Your task to perform on an android device: open the mobile data screen to see how much data has been used Image 0: 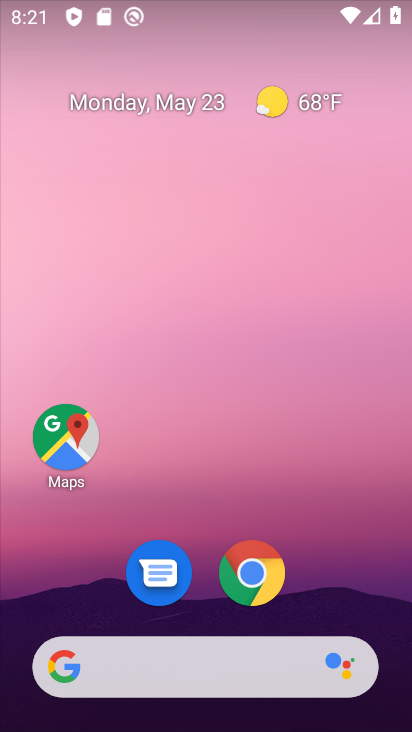
Step 0: drag from (206, 606) to (218, 138)
Your task to perform on an android device: open the mobile data screen to see how much data has been used Image 1: 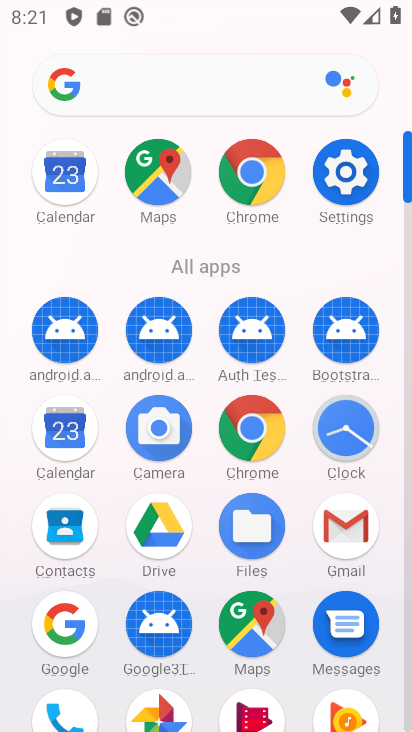
Step 1: click (352, 166)
Your task to perform on an android device: open the mobile data screen to see how much data has been used Image 2: 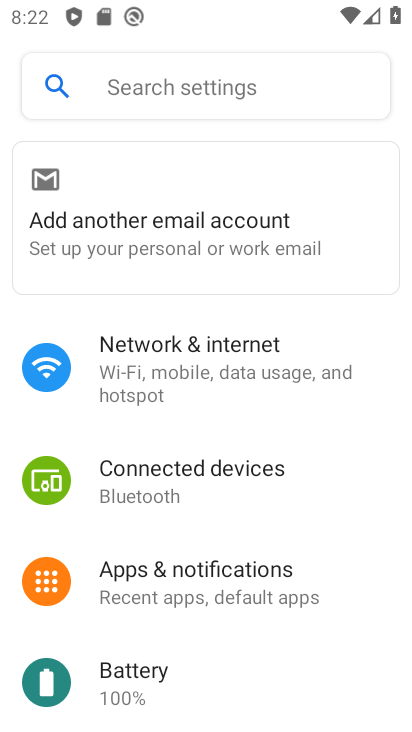
Step 2: click (149, 369)
Your task to perform on an android device: open the mobile data screen to see how much data has been used Image 3: 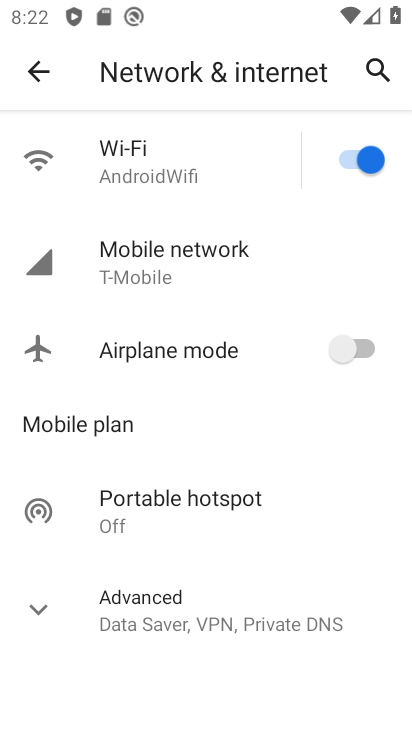
Step 3: click (171, 262)
Your task to perform on an android device: open the mobile data screen to see how much data has been used Image 4: 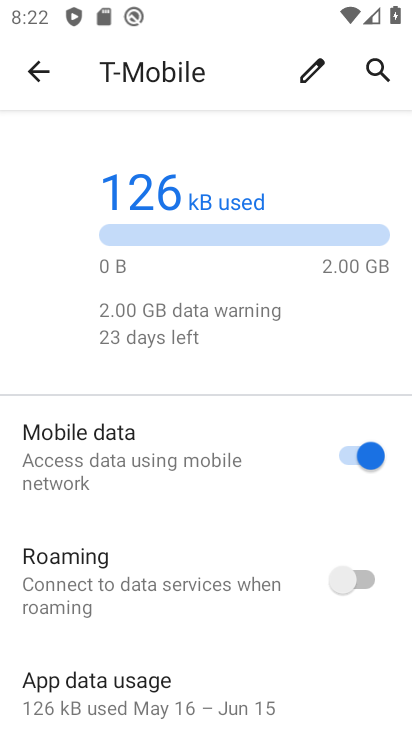
Step 4: click (180, 693)
Your task to perform on an android device: open the mobile data screen to see how much data has been used Image 5: 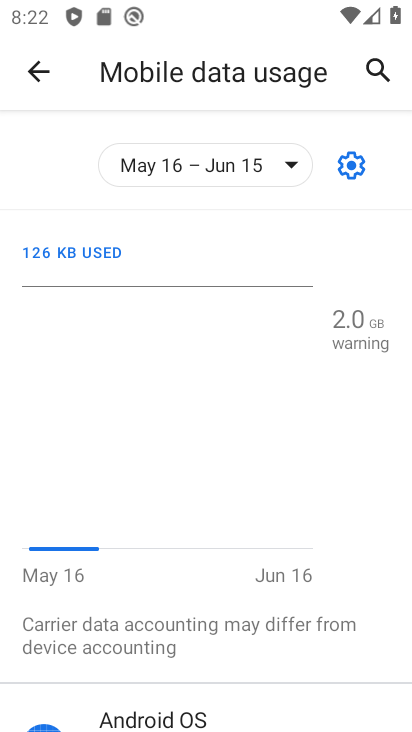
Step 5: task complete